Your task to perform on an android device: Open the stopwatch Image 0: 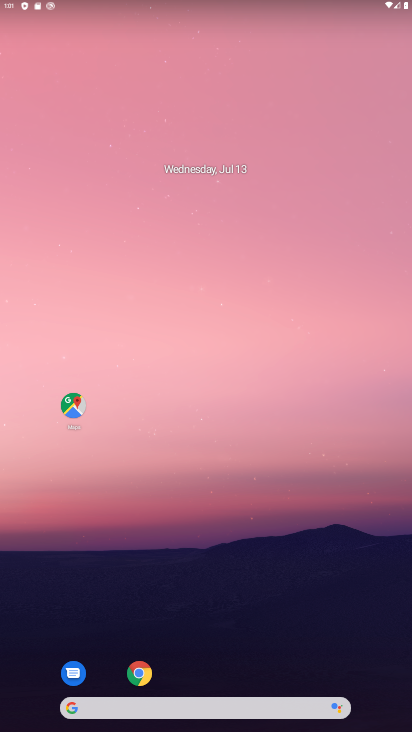
Step 0: click (183, 265)
Your task to perform on an android device: Open the stopwatch Image 1: 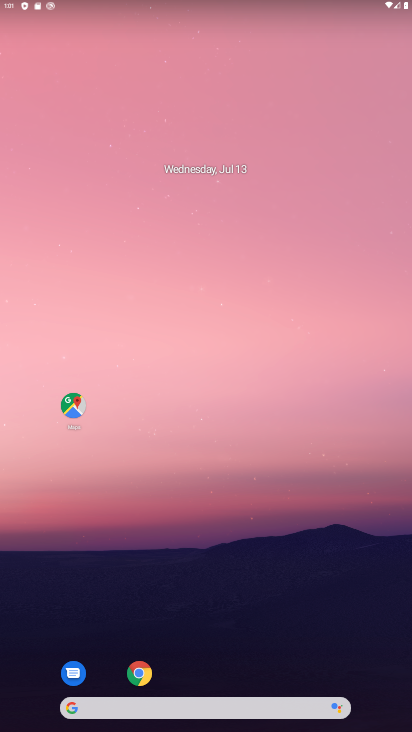
Step 1: drag from (185, 695) to (119, 197)
Your task to perform on an android device: Open the stopwatch Image 2: 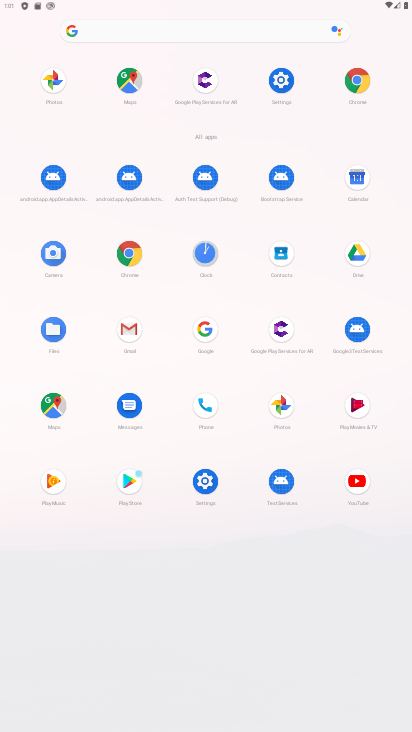
Step 2: click (205, 260)
Your task to perform on an android device: Open the stopwatch Image 3: 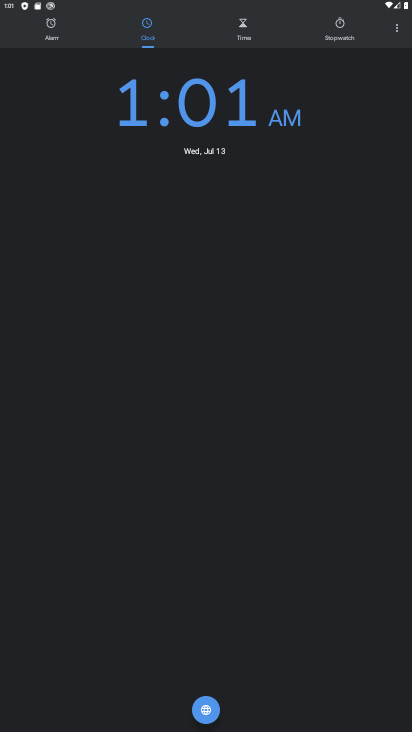
Step 3: click (334, 33)
Your task to perform on an android device: Open the stopwatch Image 4: 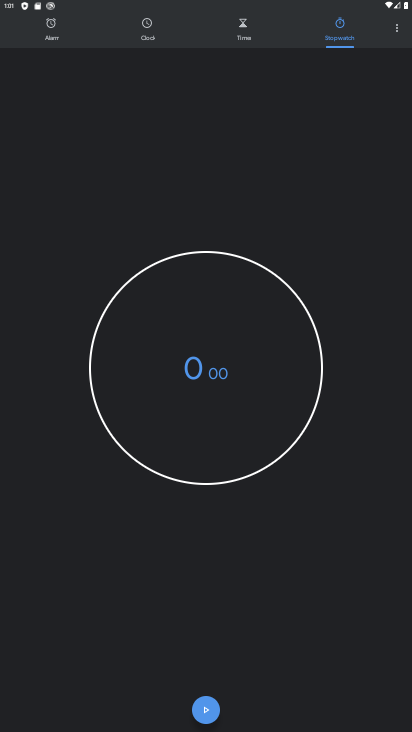
Step 4: task complete